Your task to perform on an android device: Turn on the flashlight Image 0: 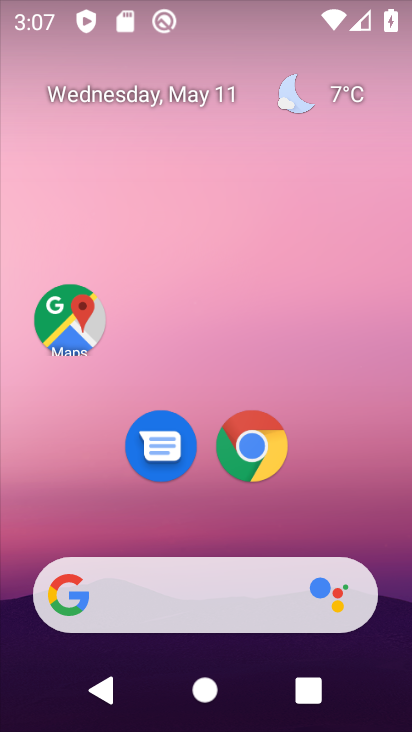
Step 0: drag from (326, 697) to (34, 112)
Your task to perform on an android device: Turn on the flashlight Image 1: 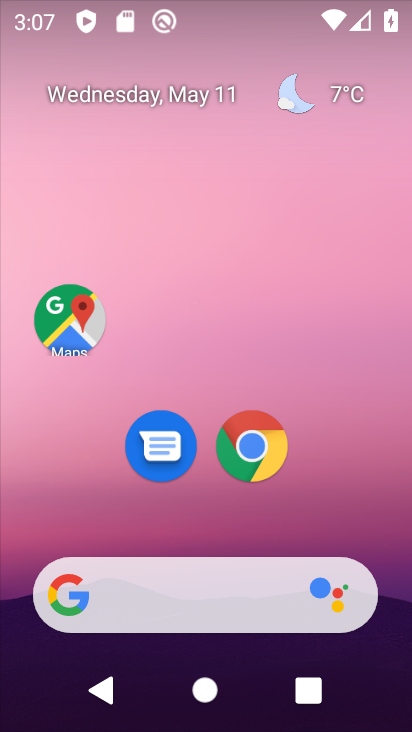
Step 1: drag from (329, 504) to (138, 107)
Your task to perform on an android device: Turn on the flashlight Image 2: 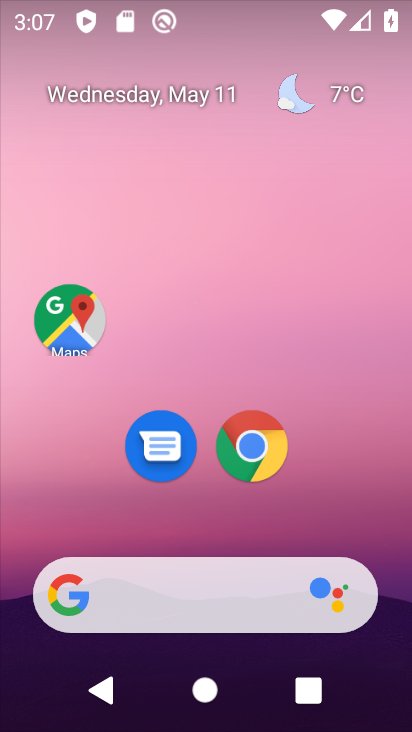
Step 2: drag from (349, 421) to (41, 8)
Your task to perform on an android device: Turn on the flashlight Image 3: 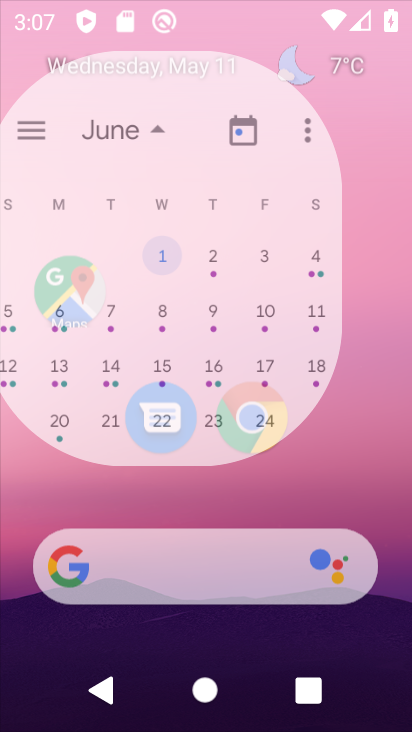
Step 3: drag from (271, 395) to (138, 39)
Your task to perform on an android device: Turn on the flashlight Image 4: 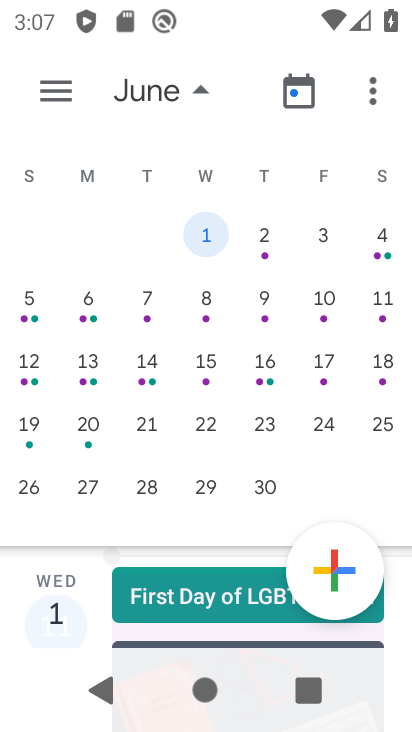
Step 4: drag from (167, 440) to (100, 10)
Your task to perform on an android device: Turn on the flashlight Image 5: 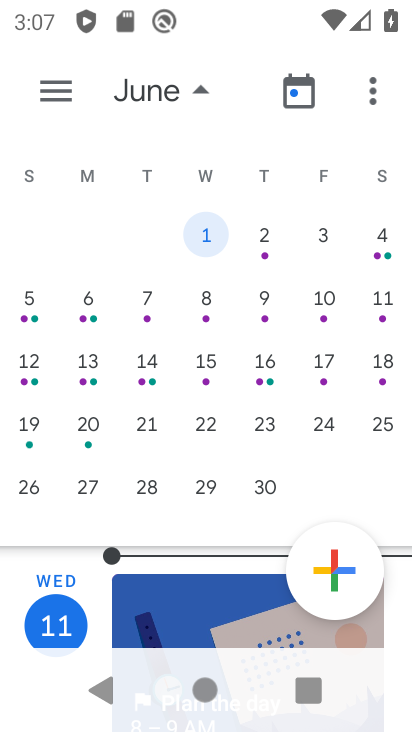
Step 5: press back button
Your task to perform on an android device: Turn on the flashlight Image 6: 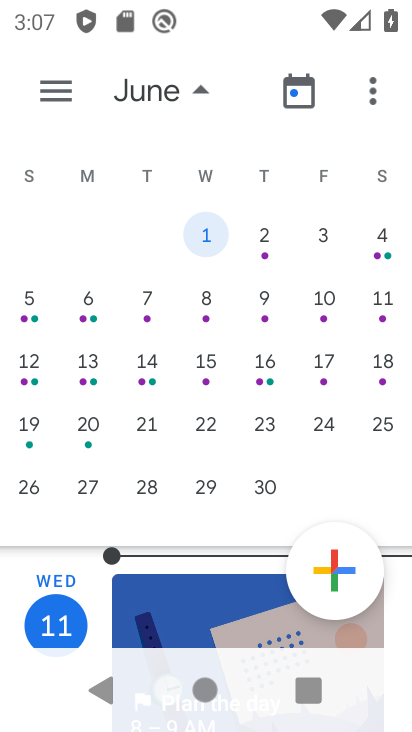
Step 6: press back button
Your task to perform on an android device: Turn on the flashlight Image 7: 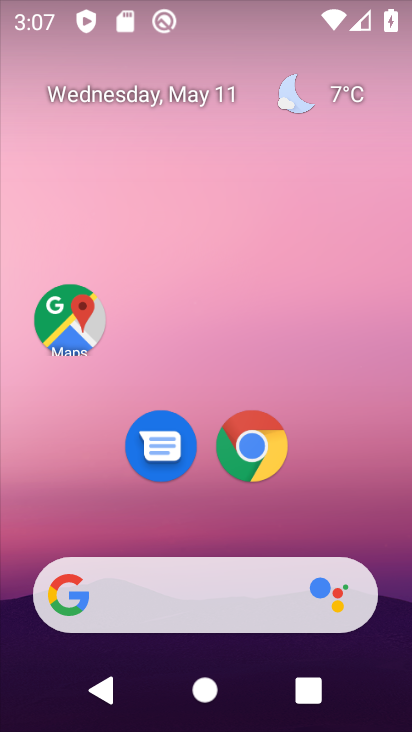
Step 7: click (128, 50)
Your task to perform on an android device: Turn on the flashlight Image 8: 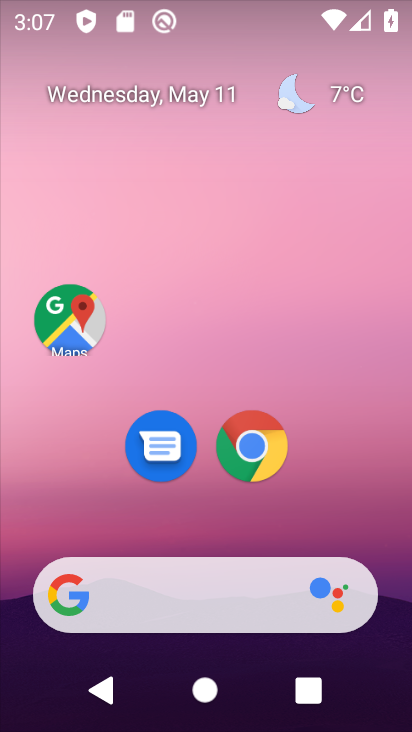
Step 8: task complete